Your task to perform on an android device: turn vacation reply on in the gmail app Image 0: 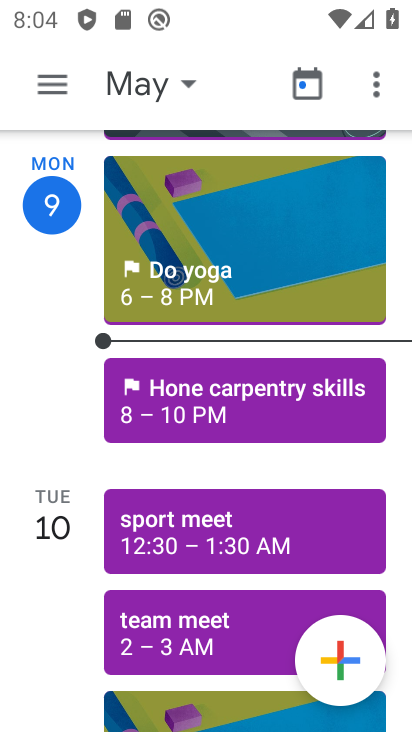
Step 0: press home button
Your task to perform on an android device: turn vacation reply on in the gmail app Image 1: 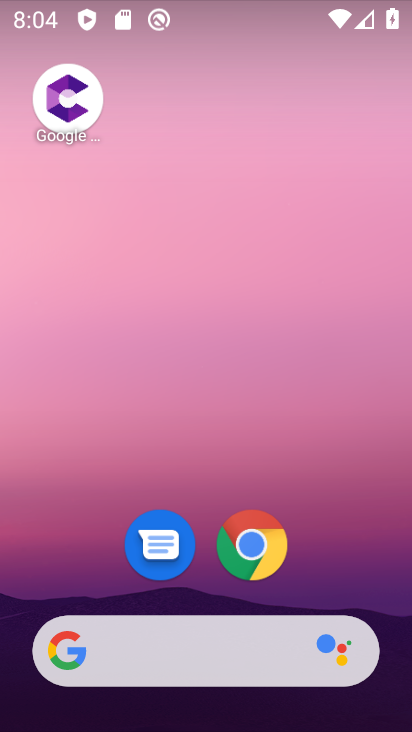
Step 1: drag from (220, 722) to (222, 79)
Your task to perform on an android device: turn vacation reply on in the gmail app Image 2: 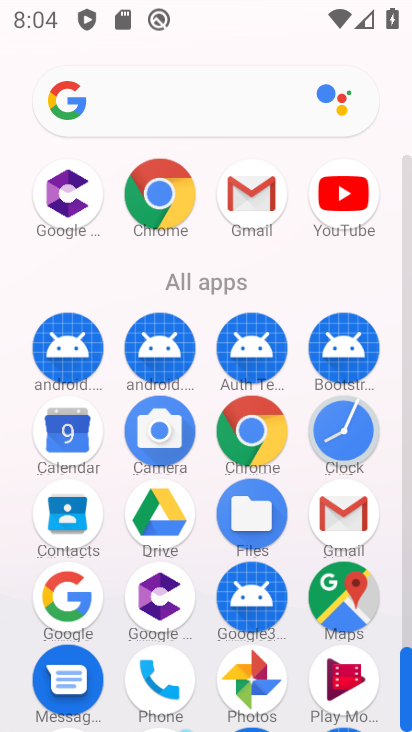
Step 2: click (347, 510)
Your task to perform on an android device: turn vacation reply on in the gmail app Image 3: 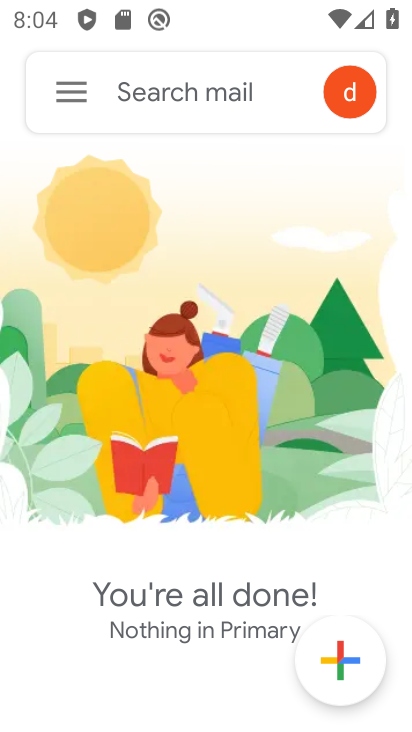
Step 3: click (62, 89)
Your task to perform on an android device: turn vacation reply on in the gmail app Image 4: 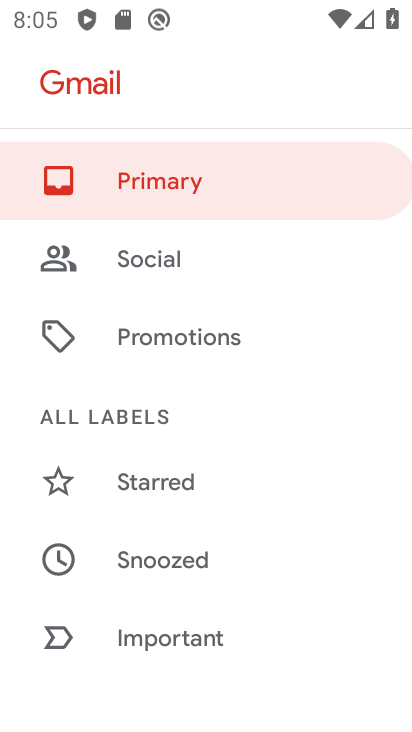
Step 4: drag from (172, 618) to (177, 251)
Your task to perform on an android device: turn vacation reply on in the gmail app Image 5: 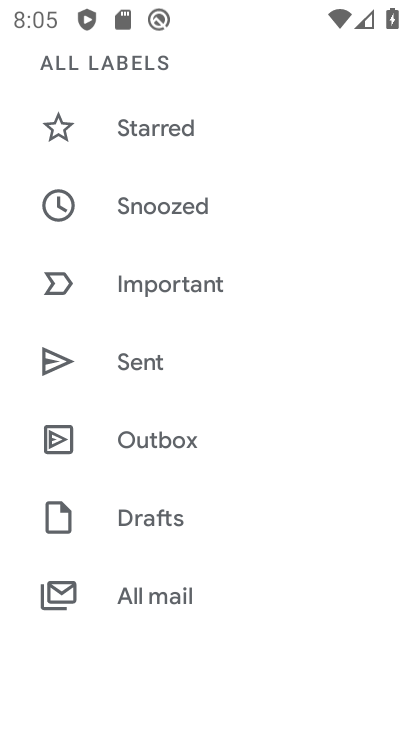
Step 5: drag from (192, 618) to (207, 272)
Your task to perform on an android device: turn vacation reply on in the gmail app Image 6: 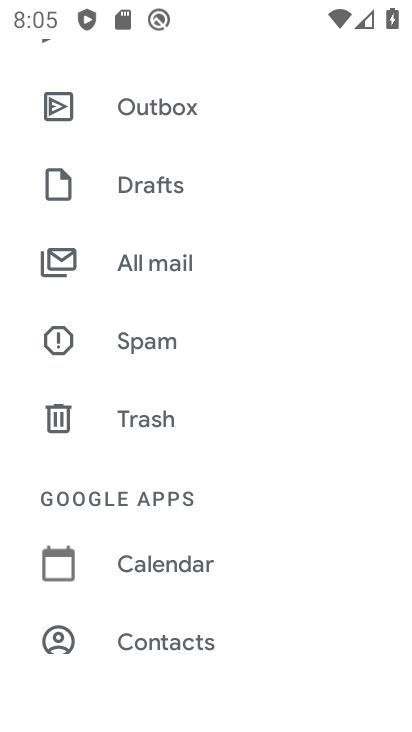
Step 6: drag from (213, 617) to (214, 285)
Your task to perform on an android device: turn vacation reply on in the gmail app Image 7: 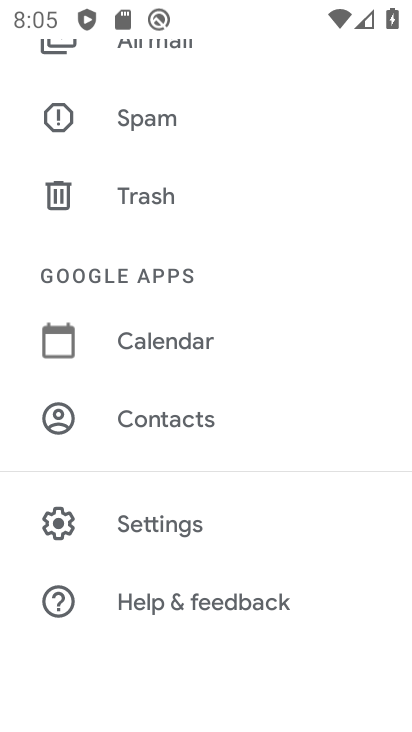
Step 7: click (146, 522)
Your task to perform on an android device: turn vacation reply on in the gmail app Image 8: 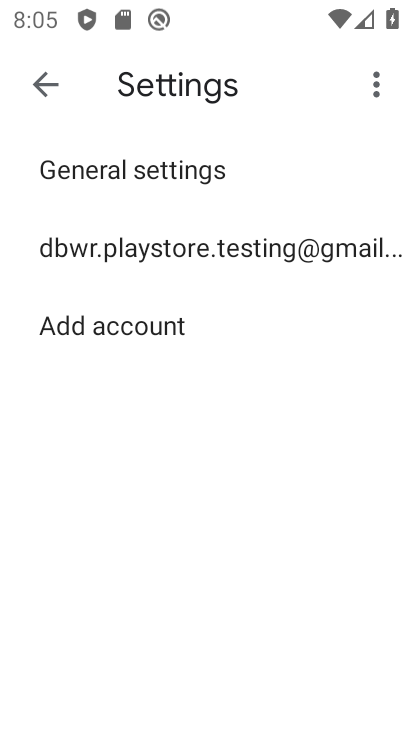
Step 8: click (177, 249)
Your task to perform on an android device: turn vacation reply on in the gmail app Image 9: 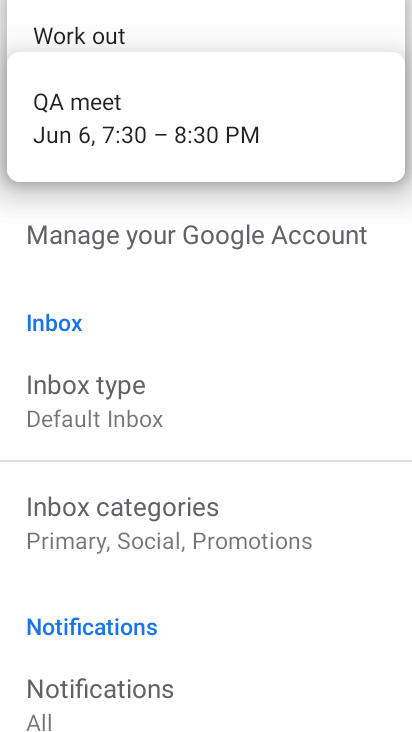
Step 9: drag from (246, 659) to (249, 417)
Your task to perform on an android device: turn vacation reply on in the gmail app Image 10: 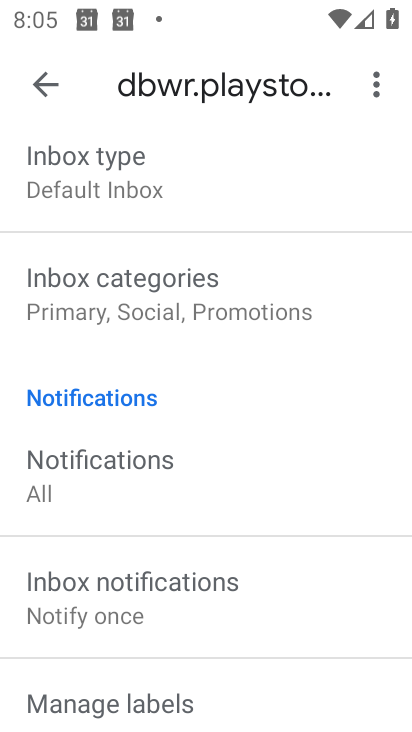
Step 10: drag from (265, 660) to (262, 370)
Your task to perform on an android device: turn vacation reply on in the gmail app Image 11: 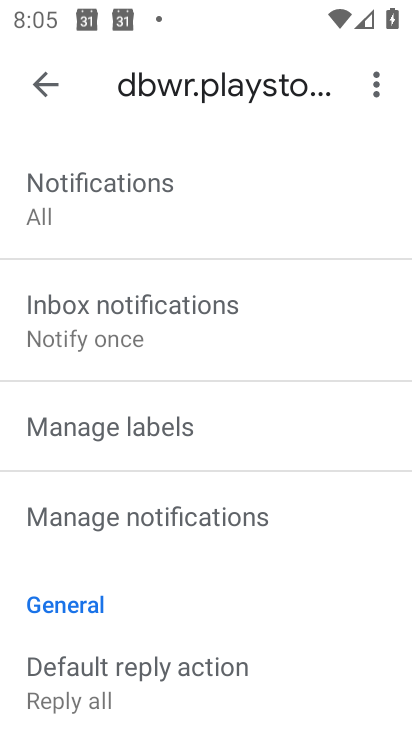
Step 11: drag from (254, 660) to (258, 412)
Your task to perform on an android device: turn vacation reply on in the gmail app Image 12: 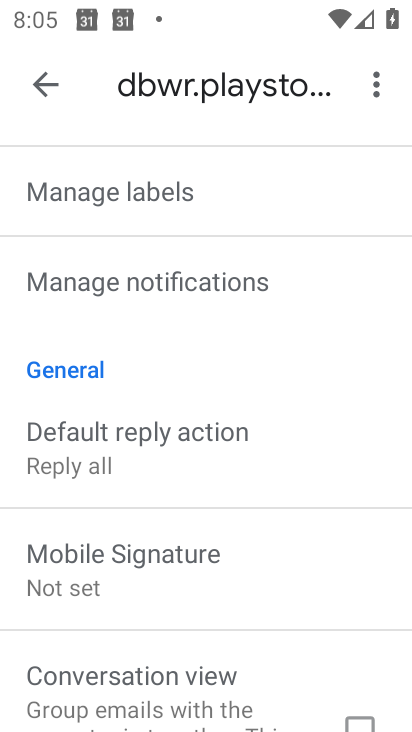
Step 12: drag from (263, 639) to (270, 402)
Your task to perform on an android device: turn vacation reply on in the gmail app Image 13: 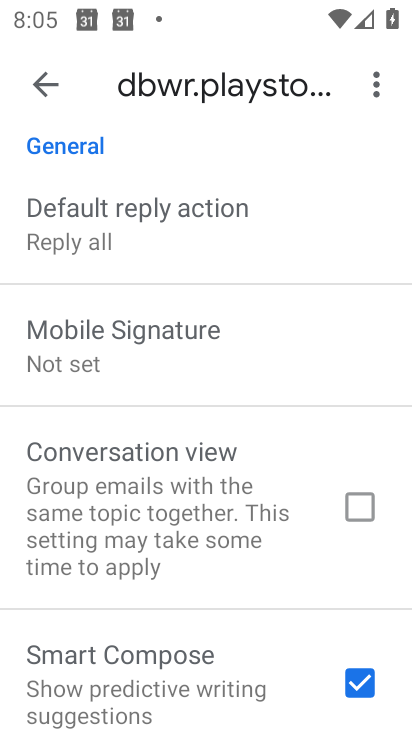
Step 13: drag from (258, 651) to (266, 359)
Your task to perform on an android device: turn vacation reply on in the gmail app Image 14: 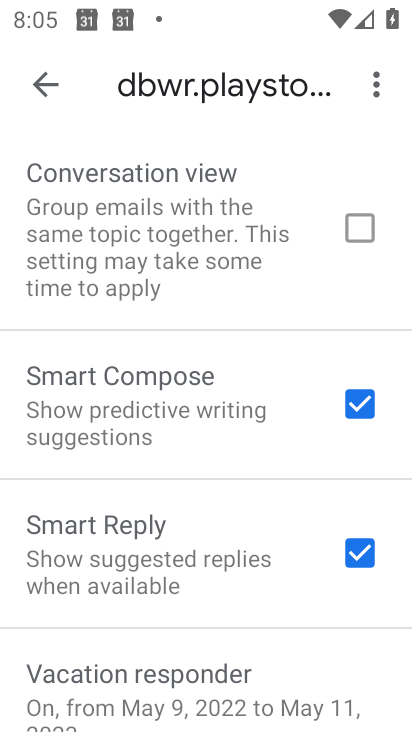
Step 14: drag from (217, 643) to (223, 401)
Your task to perform on an android device: turn vacation reply on in the gmail app Image 15: 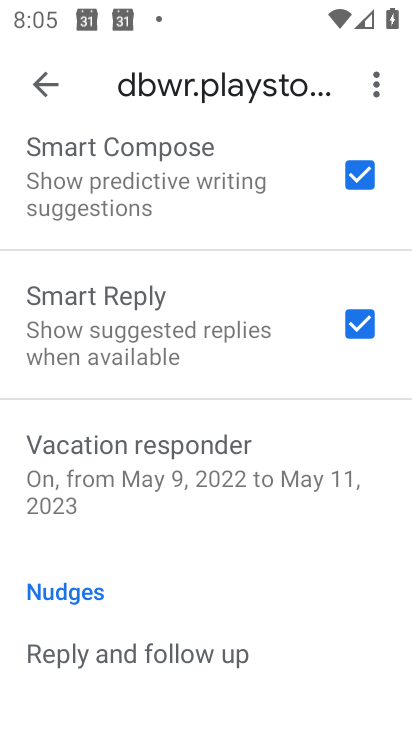
Step 15: click (198, 589)
Your task to perform on an android device: turn vacation reply on in the gmail app Image 16: 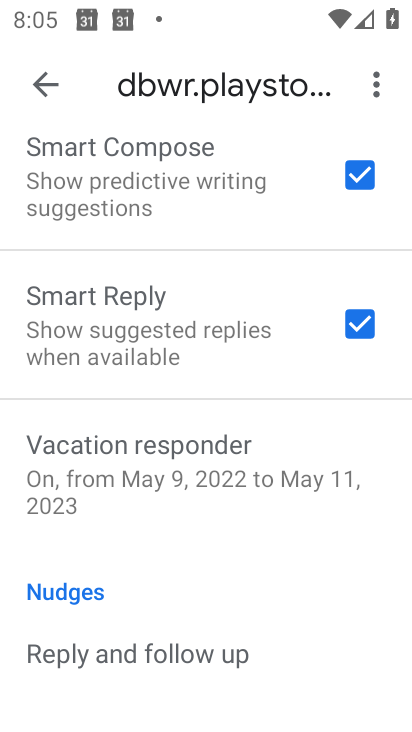
Step 16: click (66, 453)
Your task to perform on an android device: turn vacation reply on in the gmail app Image 17: 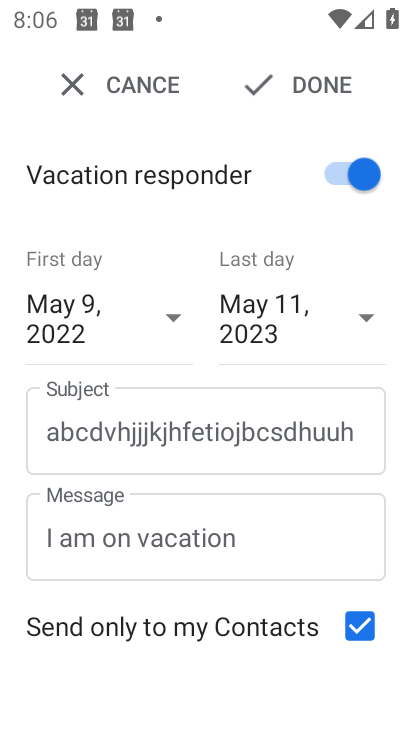
Step 17: task complete